Your task to perform on an android device: allow cookies in the chrome app Image 0: 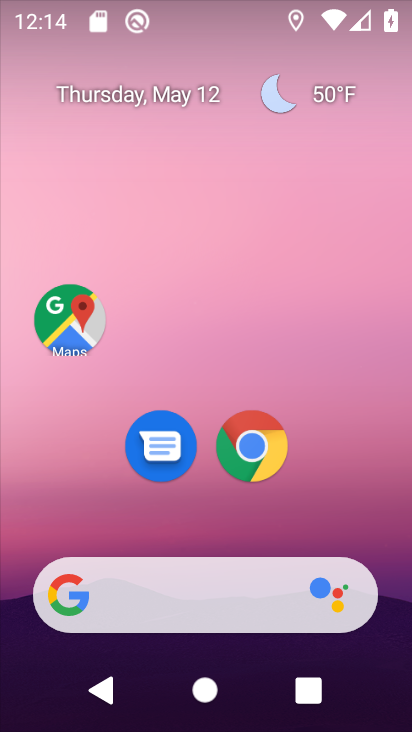
Step 0: click (264, 431)
Your task to perform on an android device: allow cookies in the chrome app Image 1: 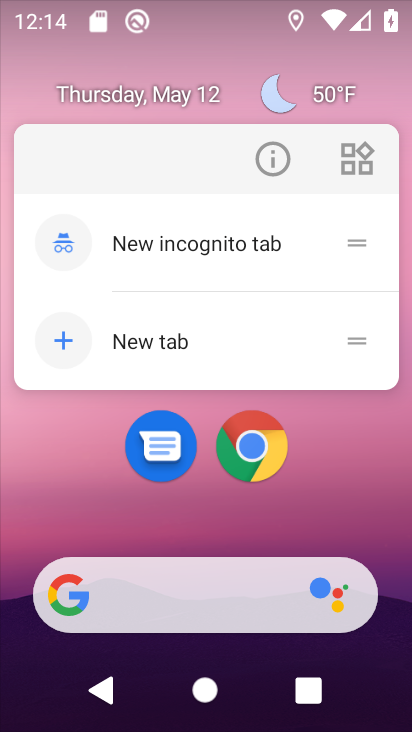
Step 1: click (245, 447)
Your task to perform on an android device: allow cookies in the chrome app Image 2: 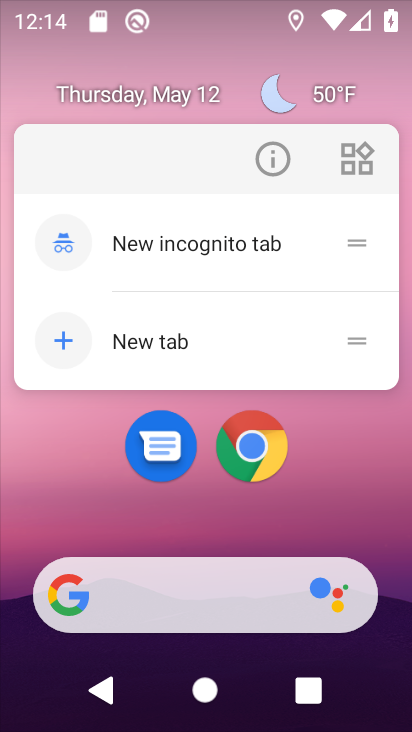
Step 2: click (242, 428)
Your task to perform on an android device: allow cookies in the chrome app Image 3: 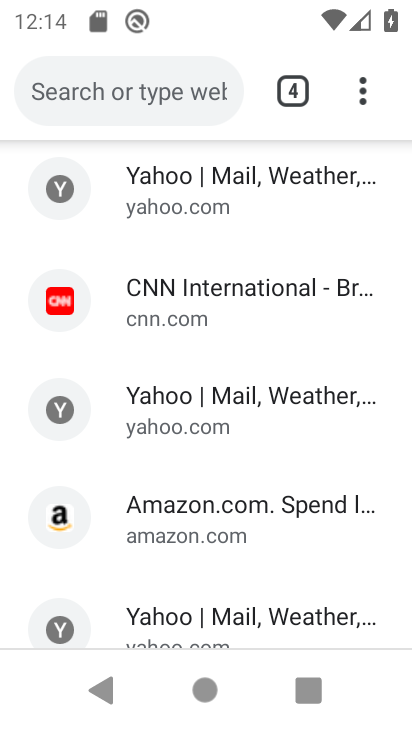
Step 3: click (359, 95)
Your task to perform on an android device: allow cookies in the chrome app Image 4: 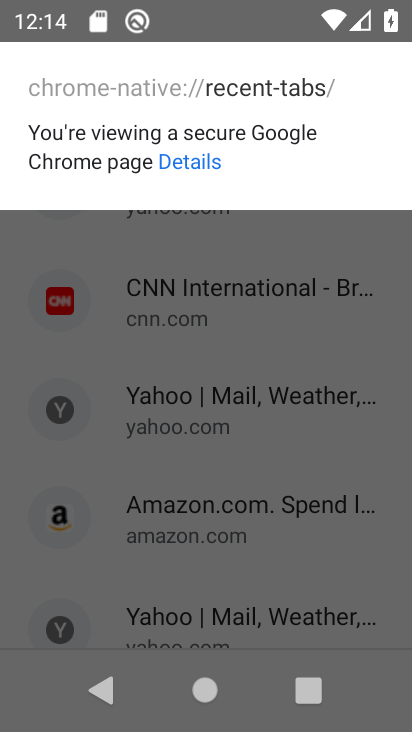
Step 4: click (27, 365)
Your task to perform on an android device: allow cookies in the chrome app Image 5: 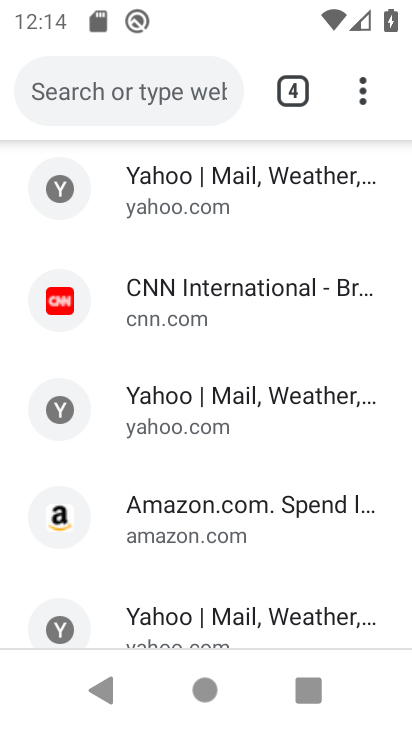
Step 5: click (364, 94)
Your task to perform on an android device: allow cookies in the chrome app Image 6: 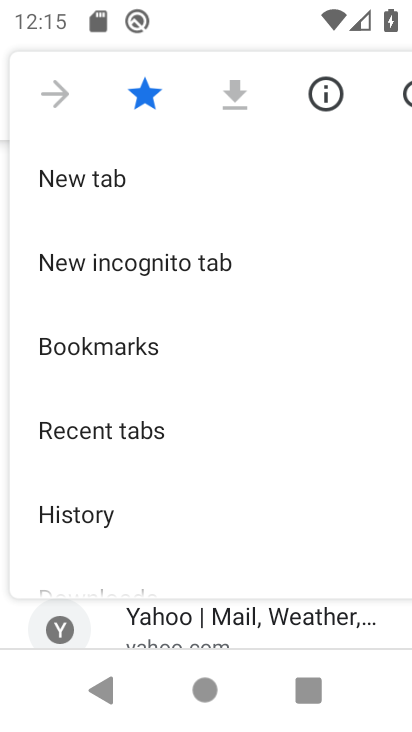
Step 6: drag from (116, 533) to (184, 71)
Your task to perform on an android device: allow cookies in the chrome app Image 7: 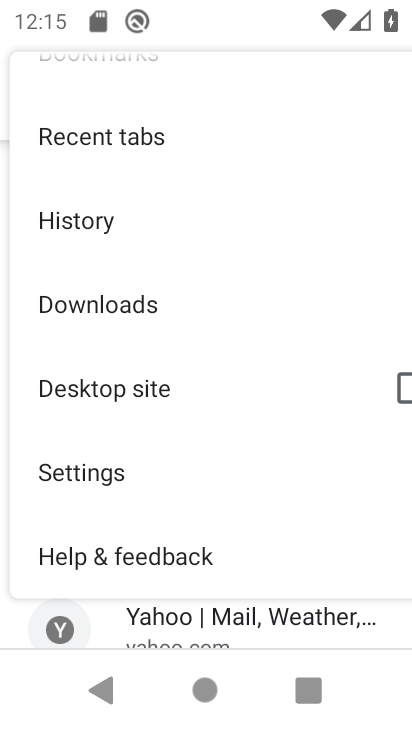
Step 7: click (93, 473)
Your task to perform on an android device: allow cookies in the chrome app Image 8: 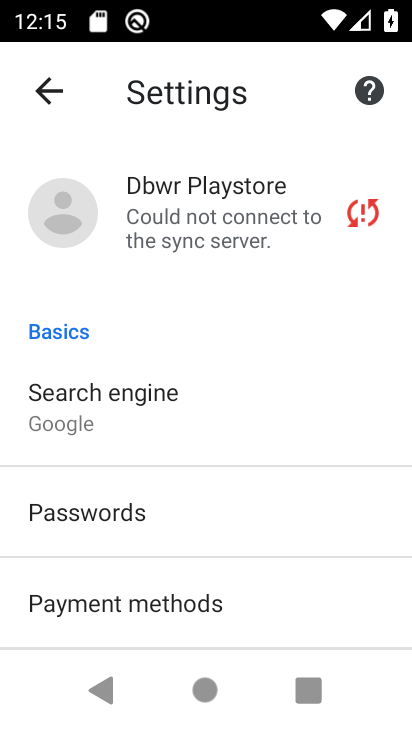
Step 8: drag from (218, 592) to (331, 83)
Your task to perform on an android device: allow cookies in the chrome app Image 9: 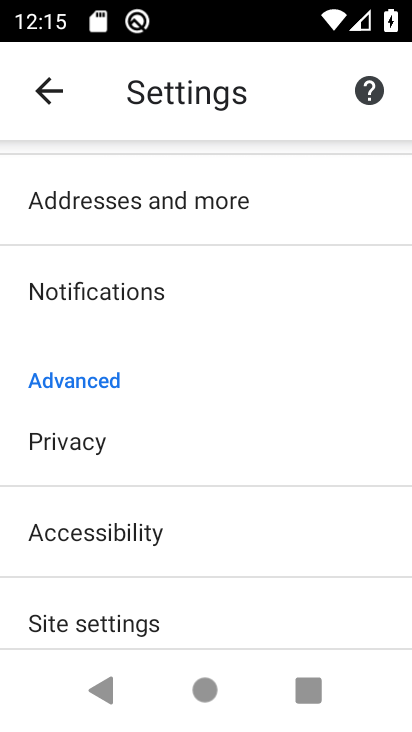
Step 9: click (148, 622)
Your task to perform on an android device: allow cookies in the chrome app Image 10: 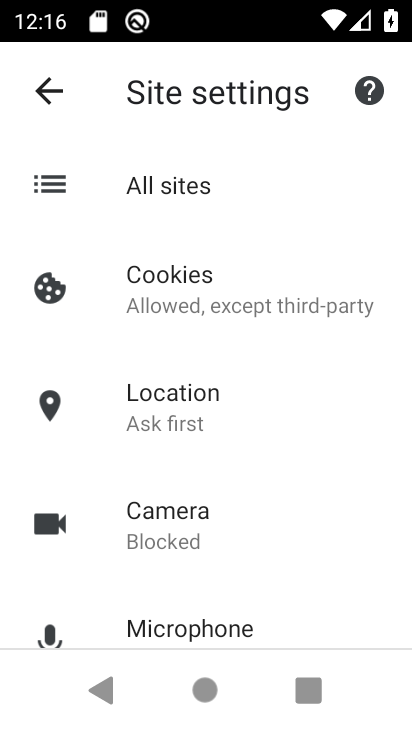
Step 10: drag from (180, 553) to (217, 136)
Your task to perform on an android device: allow cookies in the chrome app Image 11: 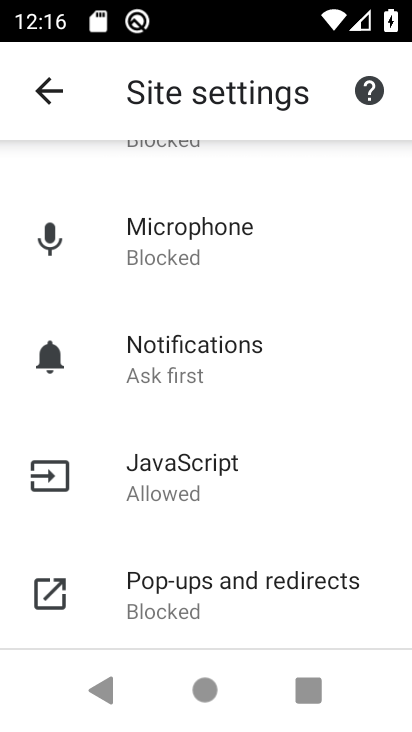
Step 11: drag from (205, 288) to (230, 344)
Your task to perform on an android device: allow cookies in the chrome app Image 12: 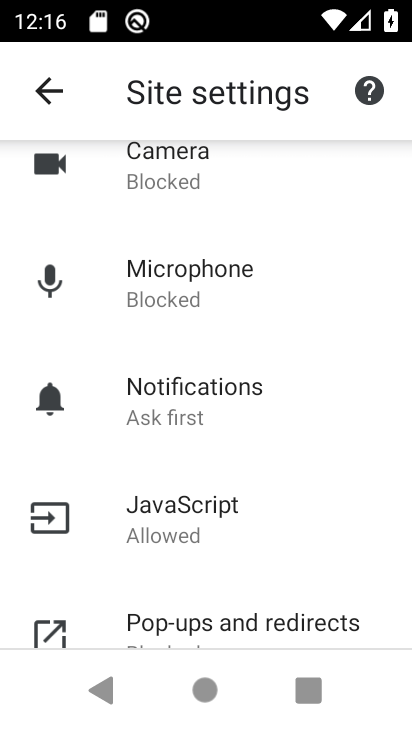
Step 12: drag from (206, 560) to (194, 211)
Your task to perform on an android device: allow cookies in the chrome app Image 13: 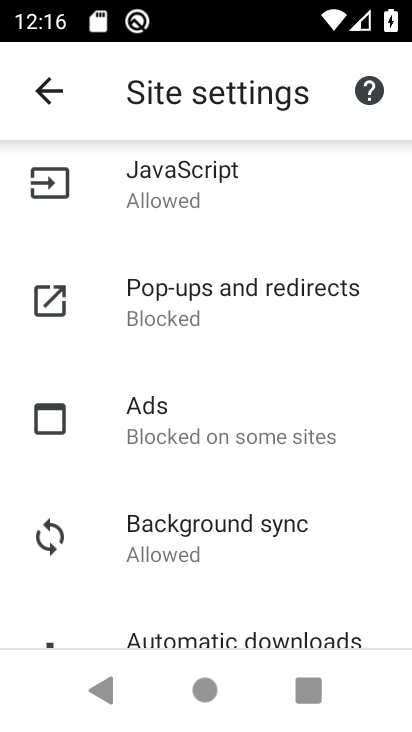
Step 13: drag from (211, 559) to (237, 235)
Your task to perform on an android device: allow cookies in the chrome app Image 14: 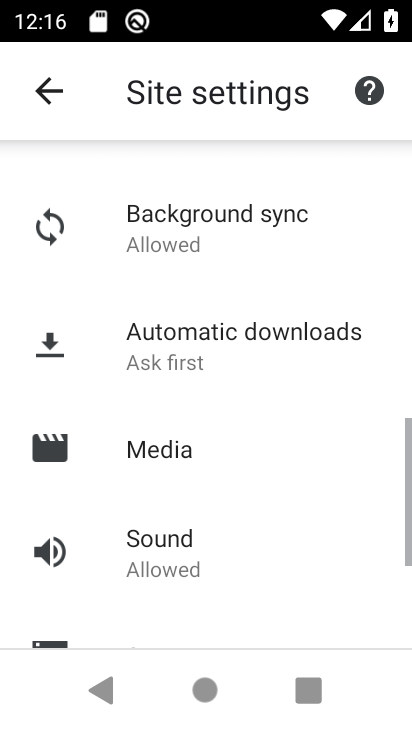
Step 14: drag from (201, 601) to (241, 185)
Your task to perform on an android device: allow cookies in the chrome app Image 15: 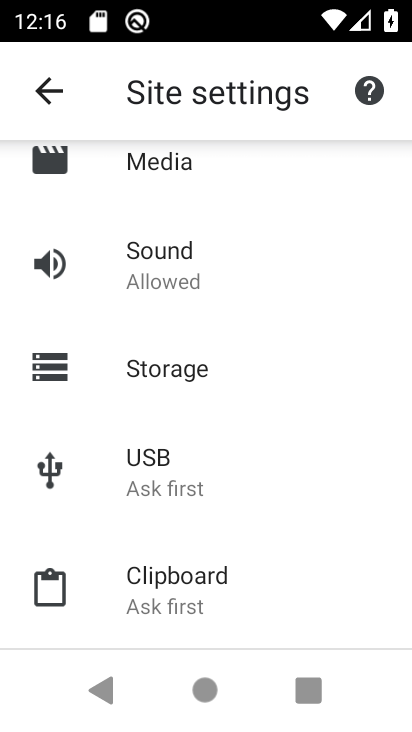
Step 15: drag from (244, 251) to (246, 719)
Your task to perform on an android device: allow cookies in the chrome app Image 16: 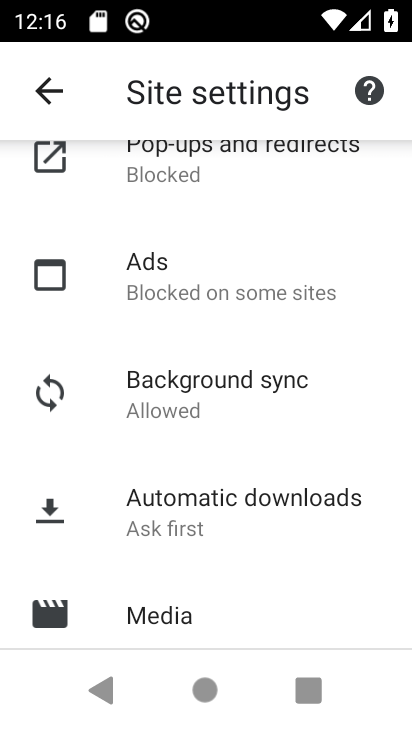
Step 16: drag from (239, 273) to (269, 586)
Your task to perform on an android device: allow cookies in the chrome app Image 17: 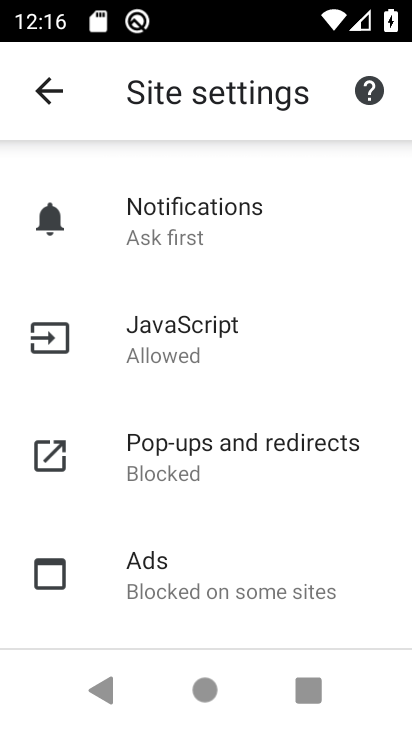
Step 17: drag from (255, 306) to (276, 580)
Your task to perform on an android device: allow cookies in the chrome app Image 18: 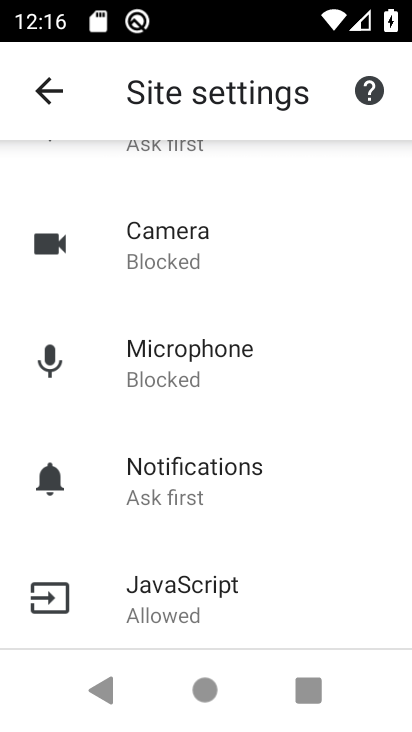
Step 18: drag from (279, 287) to (274, 665)
Your task to perform on an android device: allow cookies in the chrome app Image 19: 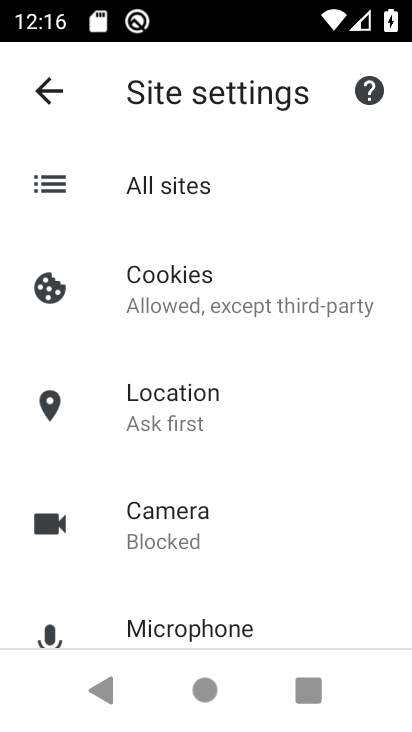
Step 19: click (236, 290)
Your task to perform on an android device: allow cookies in the chrome app Image 20: 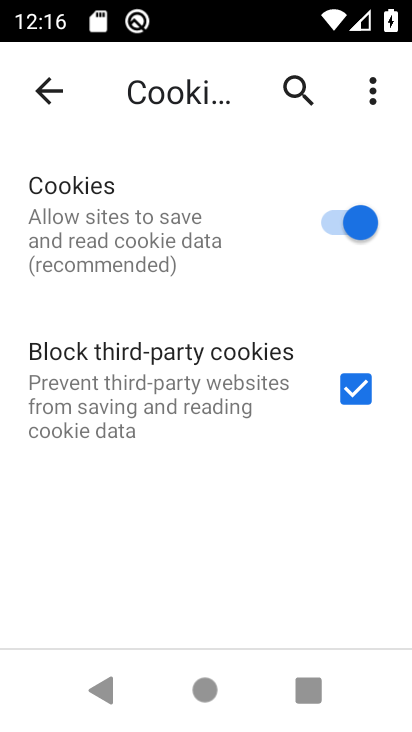
Step 20: task complete